Your task to perform on an android device: Open Google Image 0: 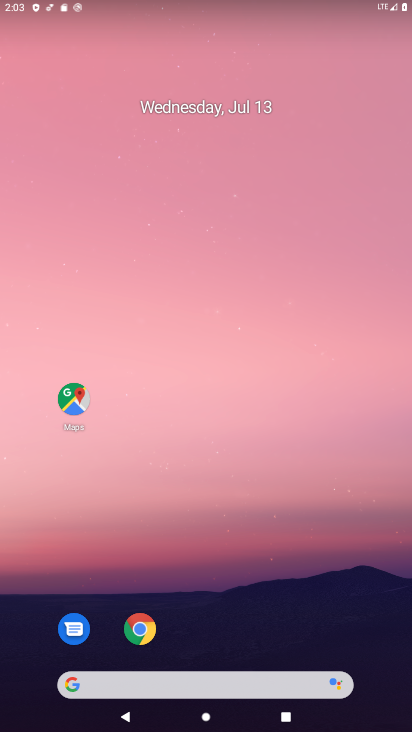
Step 0: drag from (312, 649) to (314, 98)
Your task to perform on an android device: Open Google Image 1: 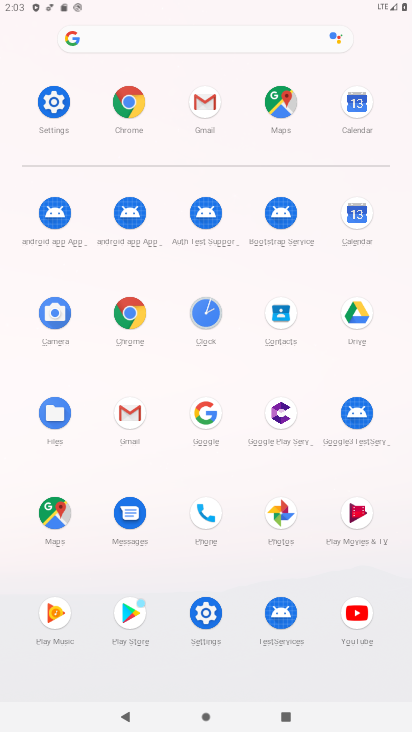
Step 1: click (144, 117)
Your task to perform on an android device: Open Google Image 2: 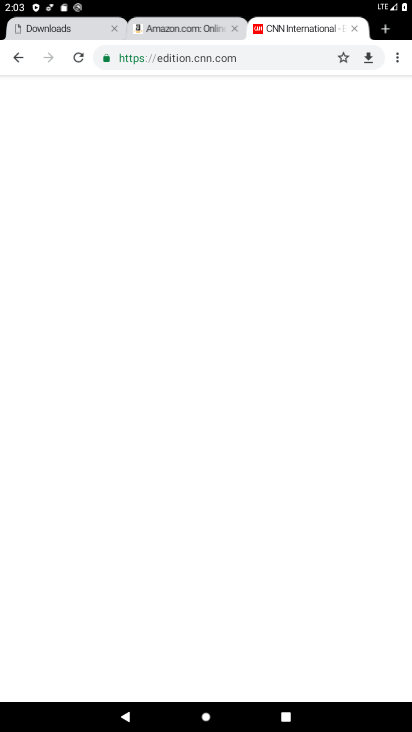
Step 2: task complete